Your task to perform on an android device: Open Maps and search for coffee Image 0: 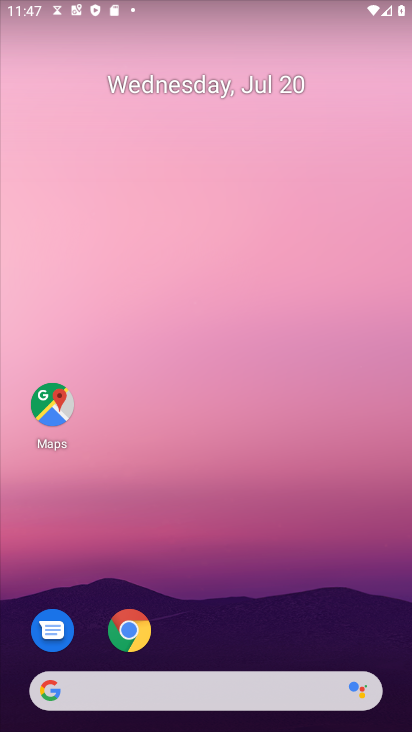
Step 0: click (54, 422)
Your task to perform on an android device: Open Maps and search for coffee Image 1: 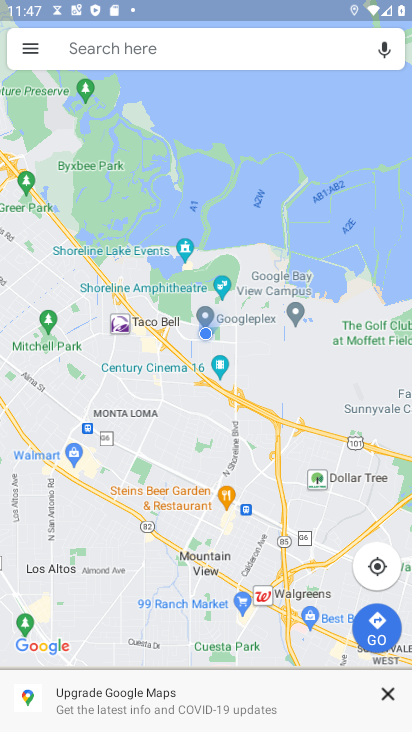
Step 1: click (78, 54)
Your task to perform on an android device: Open Maps and search for coffee Image 2: 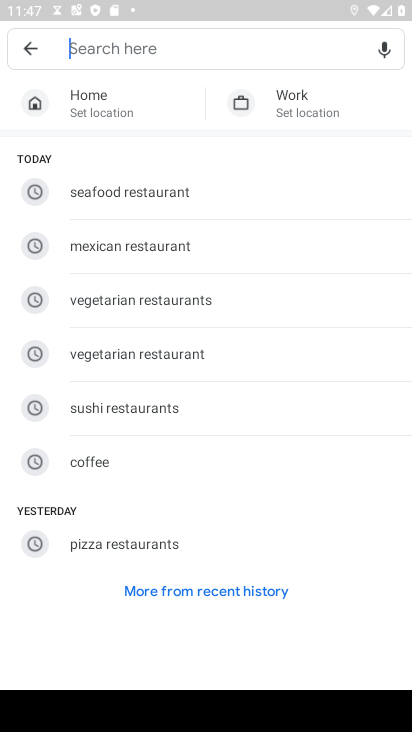
Step 2: click (65, 456)
Your task to perform on an android device: Open Maps and search for coffee Image 3: 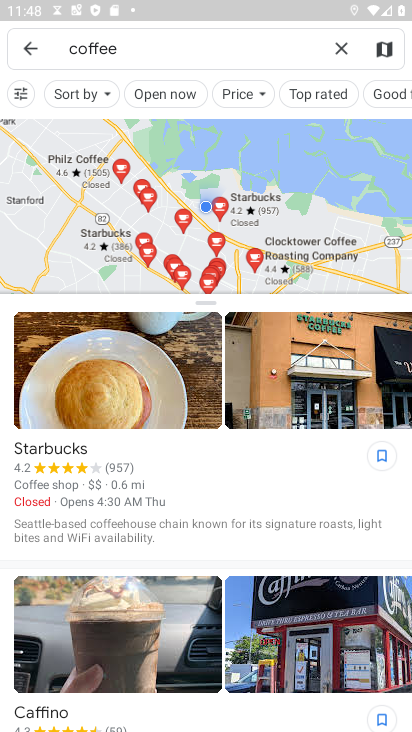
Step 3: task complete